Your task to perform on an android device: change the clock display to show seconds Image 0: 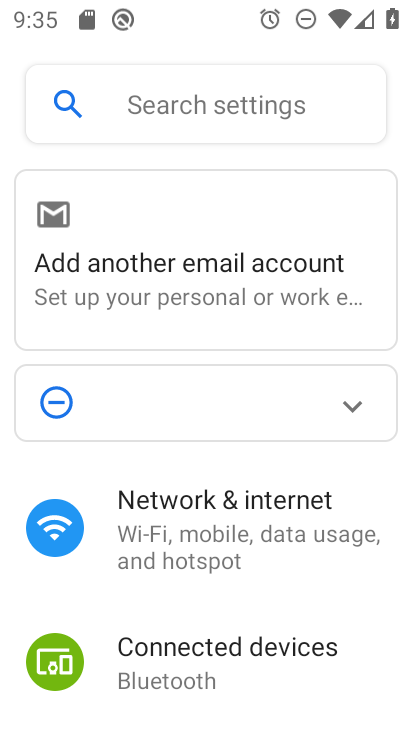
Step 0: press home button
Your task to perform on an android device: change the clock display to show seconds Image 1: 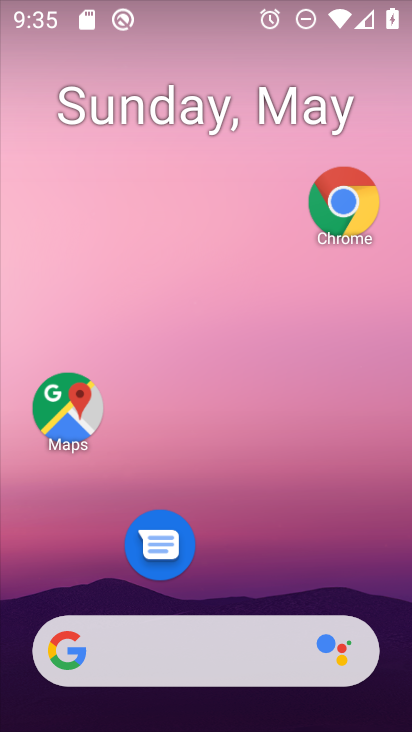
Step 1: drag from (230, 592) to (277, 34)
Your task to perform on an android device: change the clock display to show seconds Image 2: 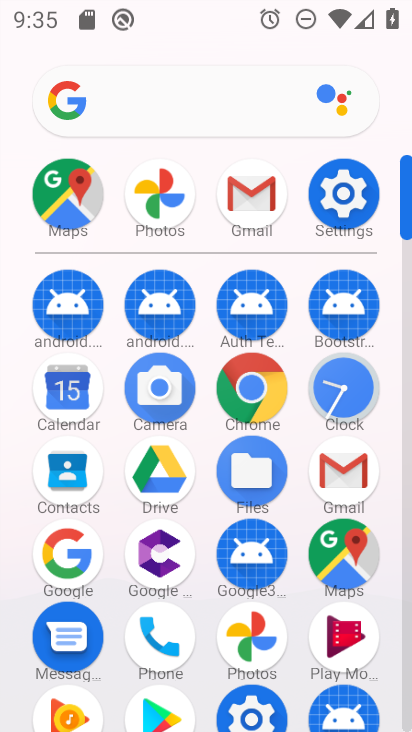
Step 2: click (340, 394)
Your task to perform on an android device: change the clock display to show seconds Image 3: 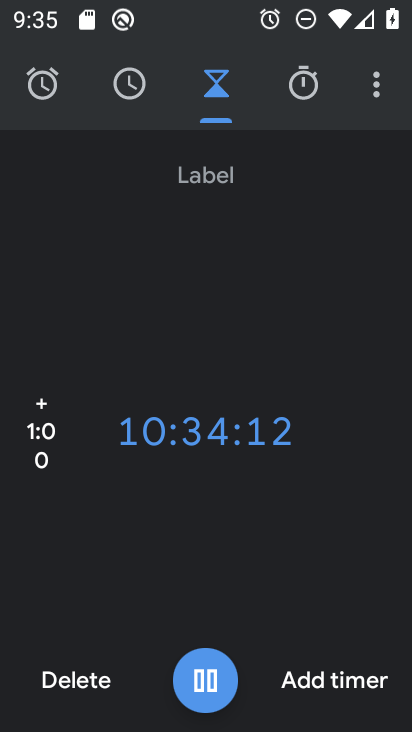
Step 3: click (379, 88)
Your task to perform on an android device: change the clock display to show seconds Image 4: 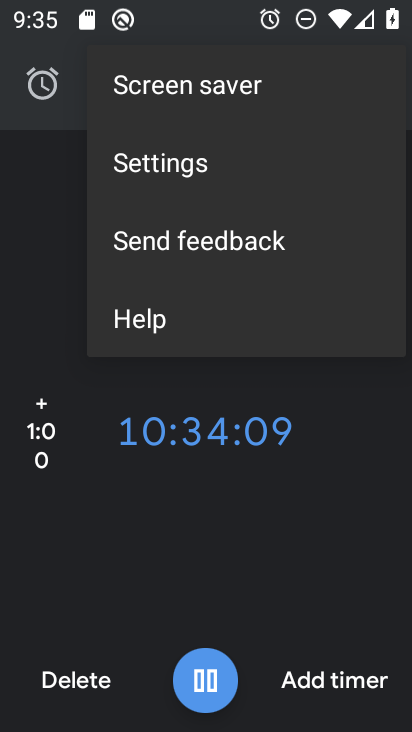
Step 4: click (214, 174)
Your task to perform on an android device: change the clock display to show seconds Image 5: 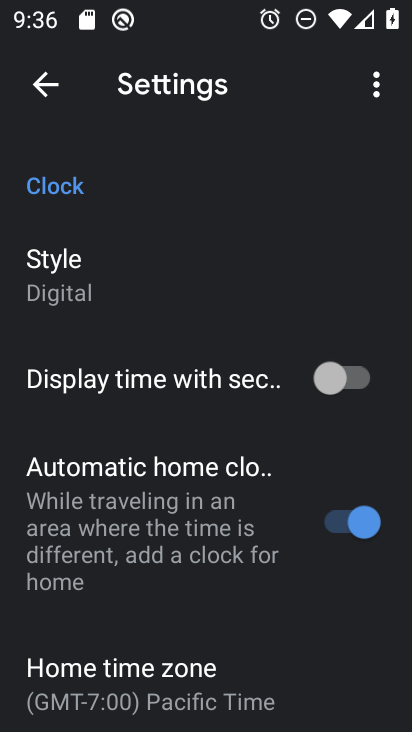
Step 5: click (349, 374)
Your task to perform on an android device: change the clock display to show seconds Image 6: 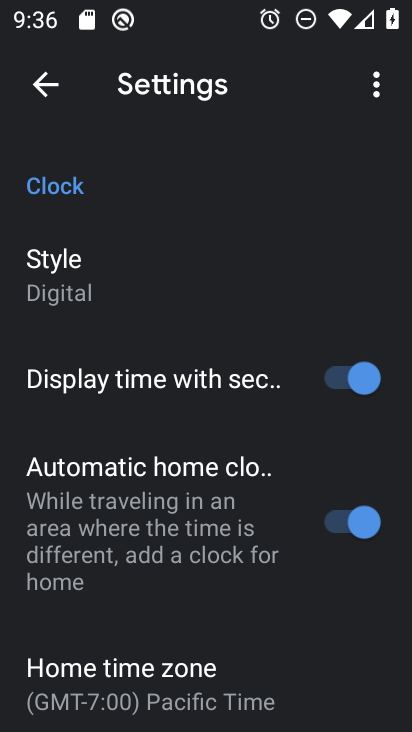
Step 6: task complete